Your task to perform on an android device: turn off javascript in the chrome app Image 0: 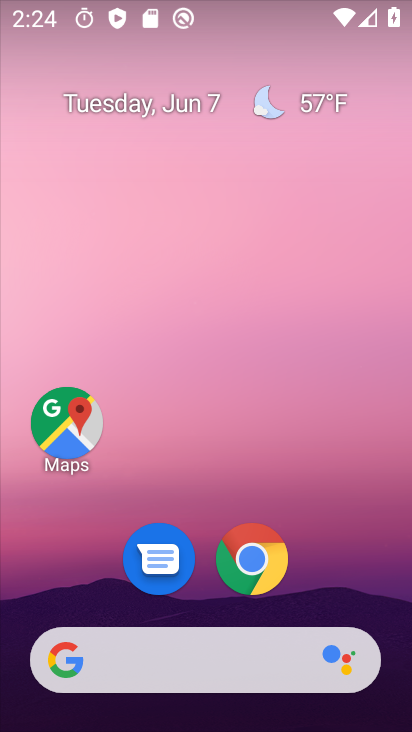
Step 0: drag from (355, 586) to (210, 1)
Your task to perform on an android device: turn off javascript in the chrome app Image 1: 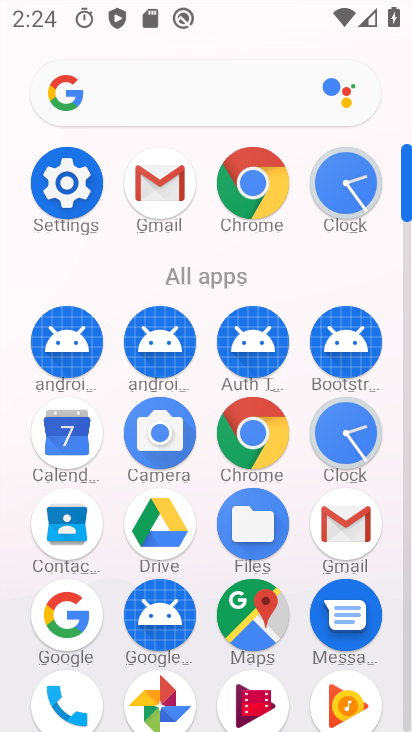
Step 1: click (248, 431)
Your task to perform on an android device: turn off javascript in the chrome app Image 2: 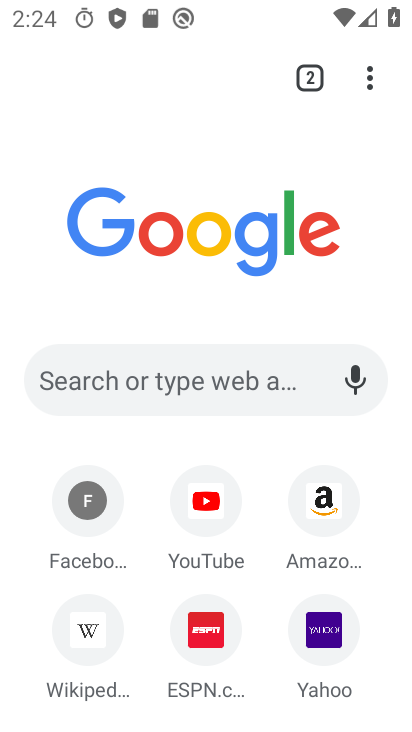
Step 2: drag from (372, 74) to (123, 598)
Your task to perform on an android device: turn off javascript in the chrome app Image 3: 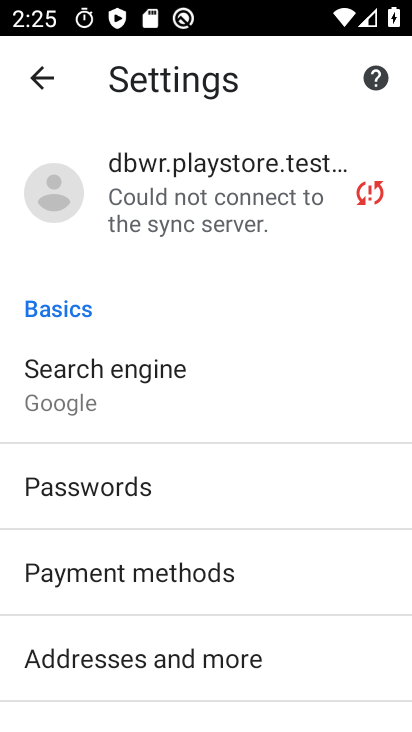
Step 3: drag from (237, 569) to (249, 217)
Your task to perform on an android device: turn off javascript in the chrome app Image 4: 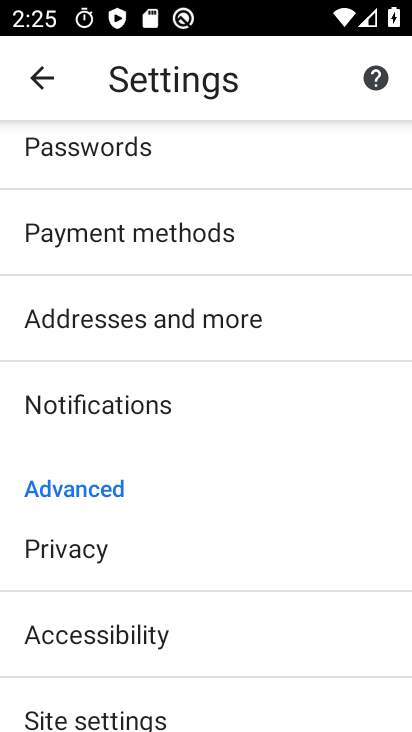
Step 4: drag from (249, 597) to (277, 187)
Your task to perform on an android device: turn off javascript in the chrome app Image 5: 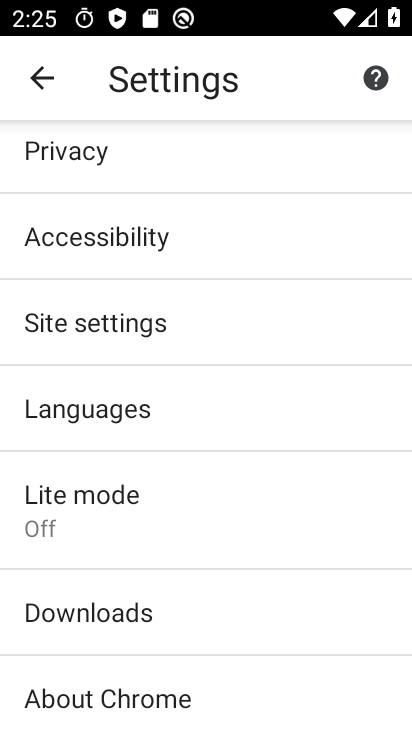
Step 5: click (187, 303)
Your task to perform on an android device: turn off javascript in the chrome app Image 6: 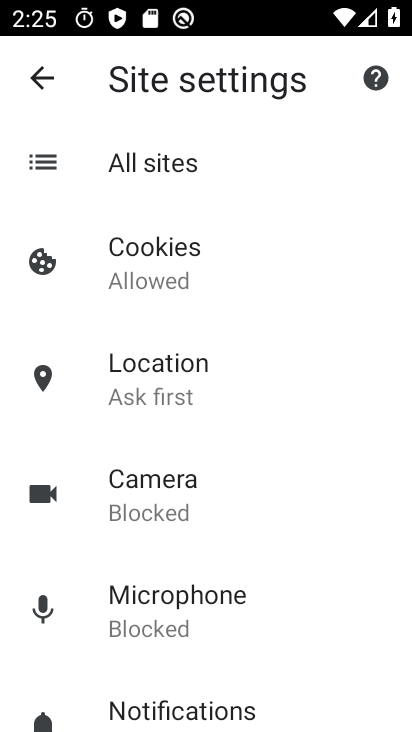
Step 6: drag from (246, 601) to (268, 238)
Your task to perform on an android device: turn off javascript in the chrome app Image 7: 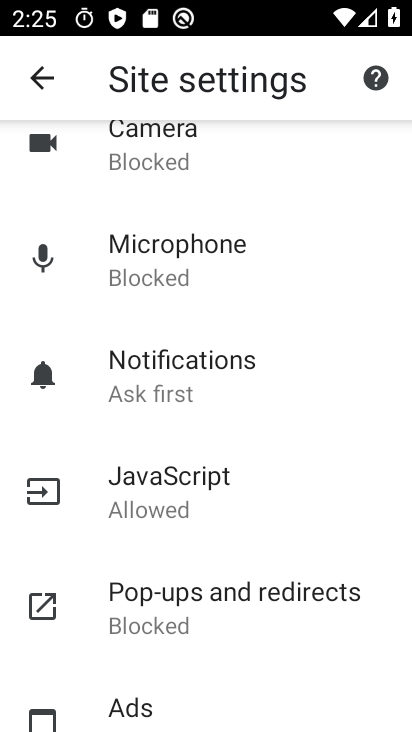
Step 7: click (232, 459)
Your task to perform on an android device: turn off javascript in the chrome app Image 8: 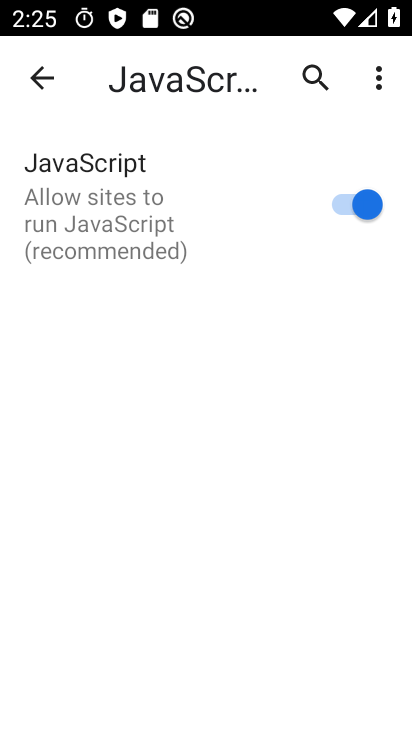
Step 8: click (342, 208)
Your task to perform on an android device: turn off javascript in the chrome app Image 9: 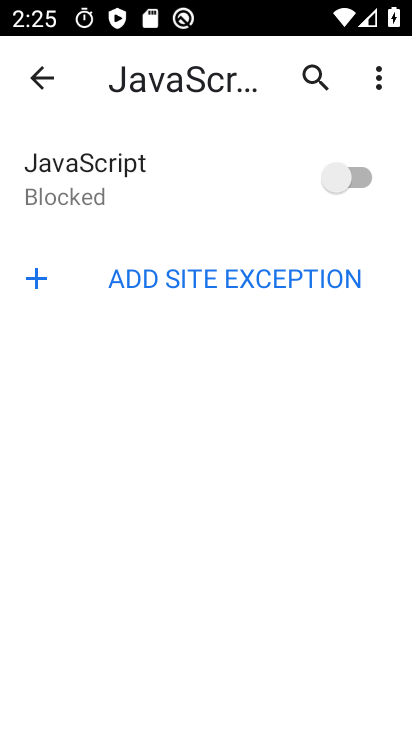
Step 9: task complete